Your task to perform on an android device: add a label to a message in the gmail app Image 0: 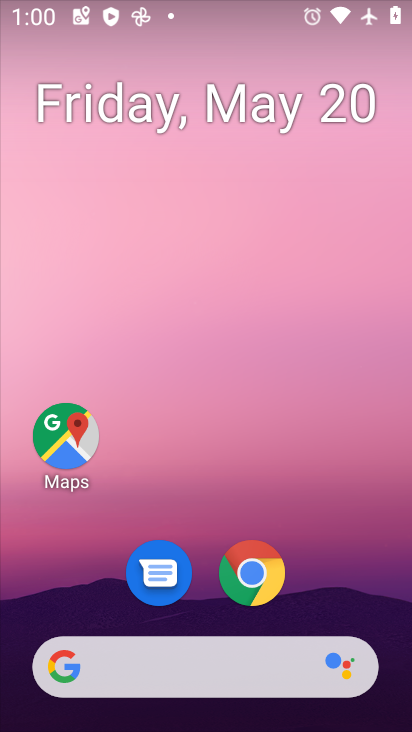
Step 0: drag from (343, 581) to (294, 84)
Your task to perform on an android device: add a label to a message in the gmail app Image 1: 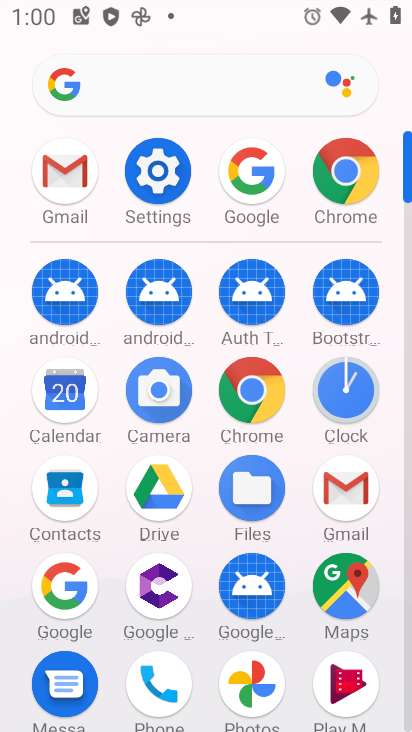
Step 1: click (56, 149)
Your task to perform on an android device: add a label to a message in the gmail app Image 2: 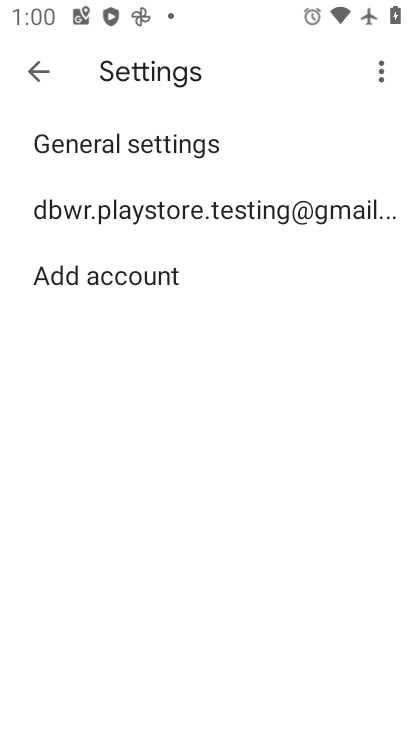
Step 2: click (235, 199)
Your task to perform on an android device: add a label to a message in the gmail app Image 3: 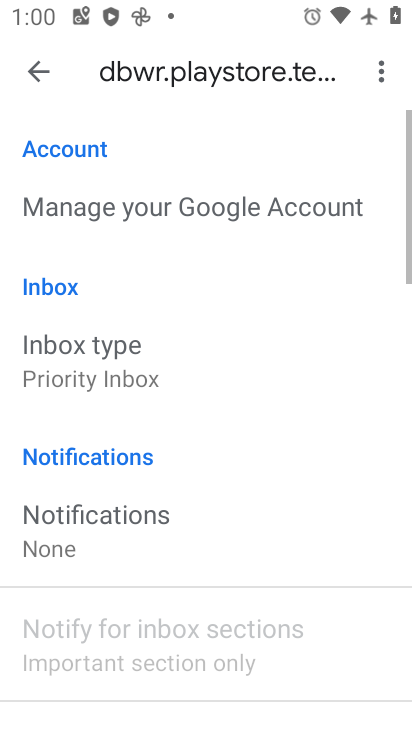
Step 3: task complete